Your task to perform on an android device: turn pop-ups off in chrome Image 0: 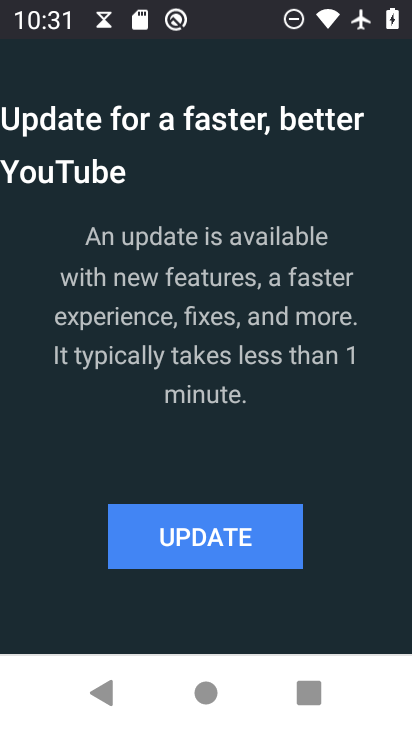
Step 0: press back button
Your task to perform on an android device: turn pop-ups off in chrome Image 1: 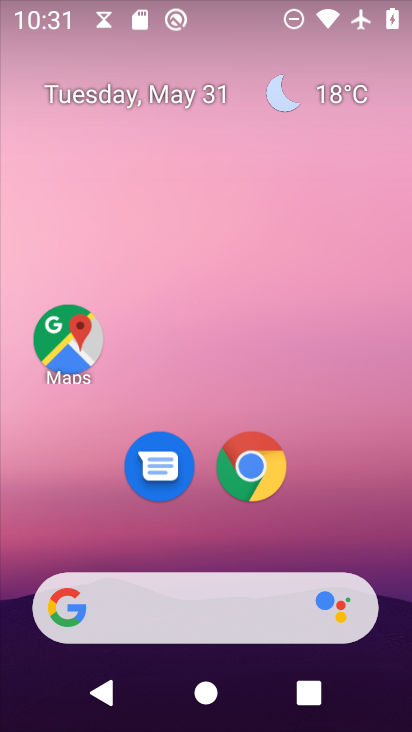
Step 1: click (248, 461)
Your task to perform on an android device: turn pop-ups off in chrome Image 2: 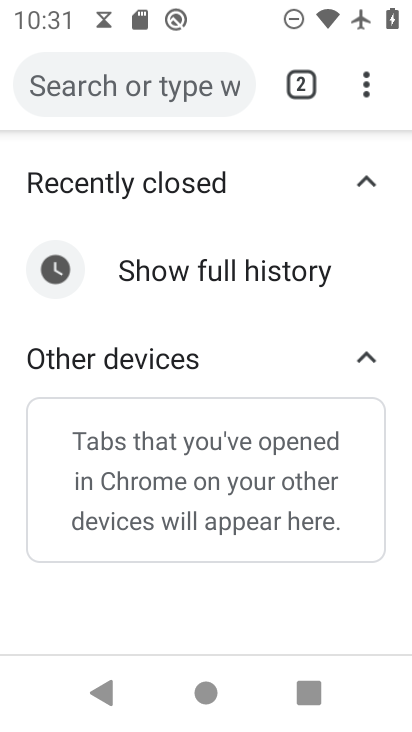
Step 2: drag from (364, 89) to (145, 507)
Your task to perform on an android device: turn pop-ups off in chrome Image 3: 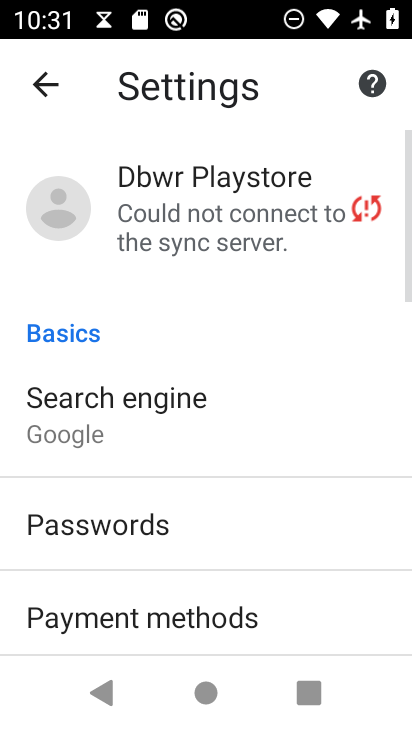
Step 3: drag from (261, 546) to (254, 263)
Your task to perform on an android device: turn pop-ups off in chrome Image 4: 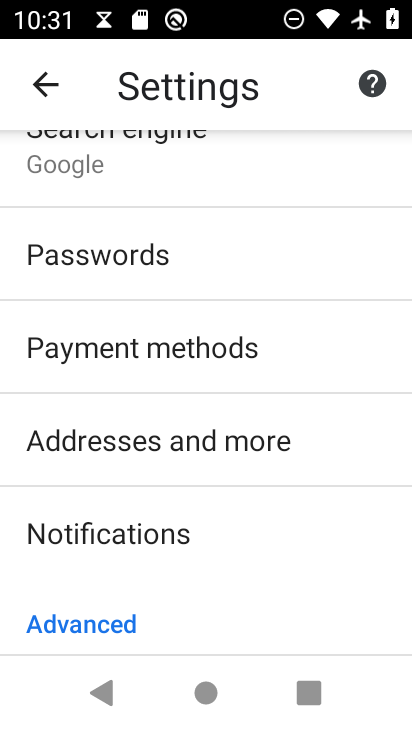
Step 4: drag from (231, 570) to (245, 174)
Your task to perform on an android device: turn pop-ups off in chrome Image 5: 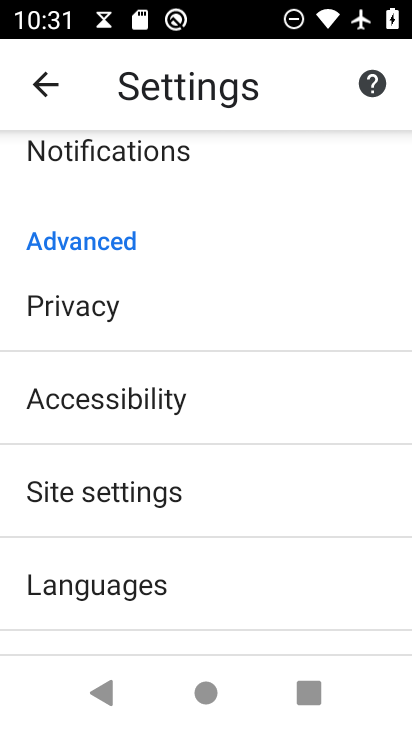
Step 5: click (199, 488)
Your task to perform on an android device: turn pop-ups off in chrome Image 6: 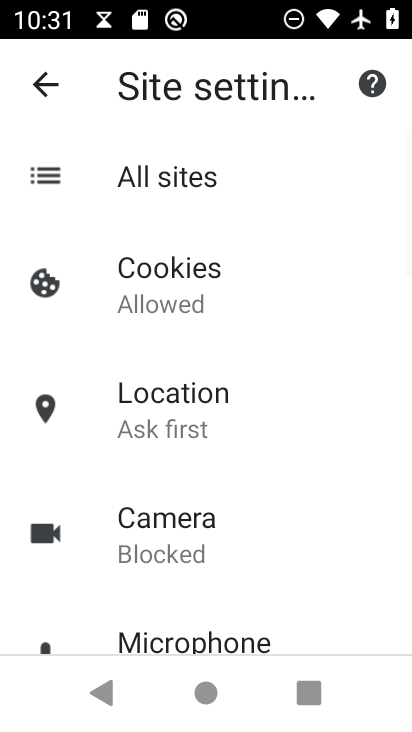
Step 6: drag from (251, 433) to (251, 137)
Your task to perform on an android device: turn pop-ups off in chrome Image 7: 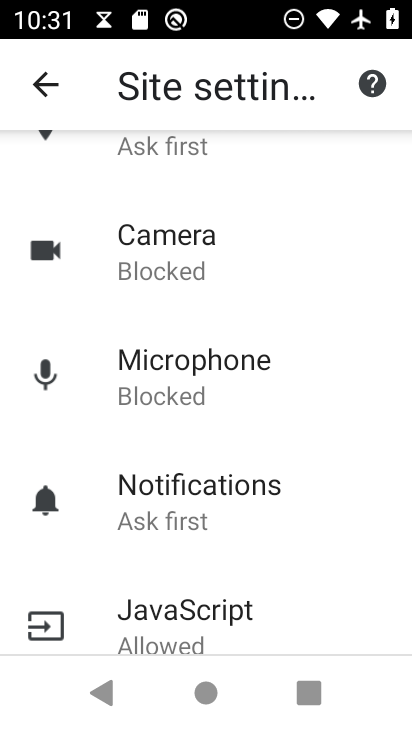
Step 7: drag from (259, 560) to (264, 163)
Your task to perform on an android device: turn pop-ups off in chrome Image 8: 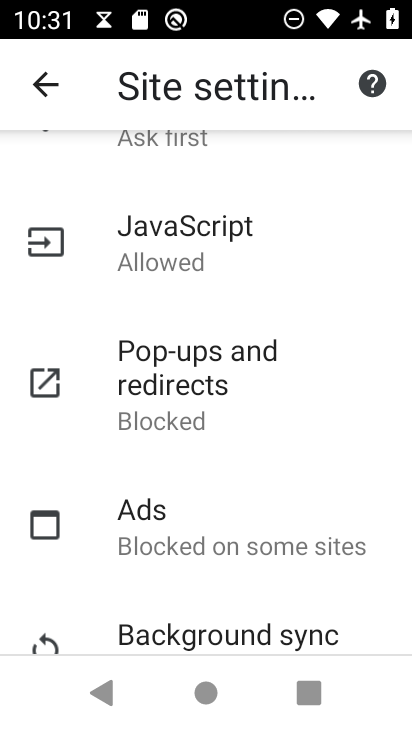
Step 8: drag from (283, 611) to (299, 203)
Your task to perform on an android device: turn pop-ups off in chrome Image 9: 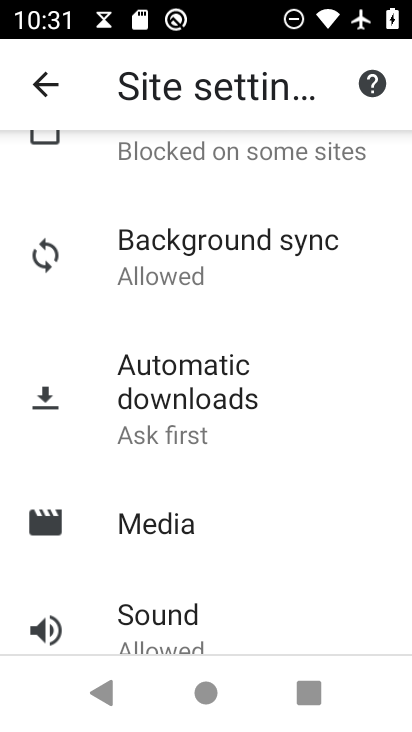
Step 9: drag from (291, 262) to (282, 564)
Your task to perform on an android device: turn pop-ups off in chrome Image 10: 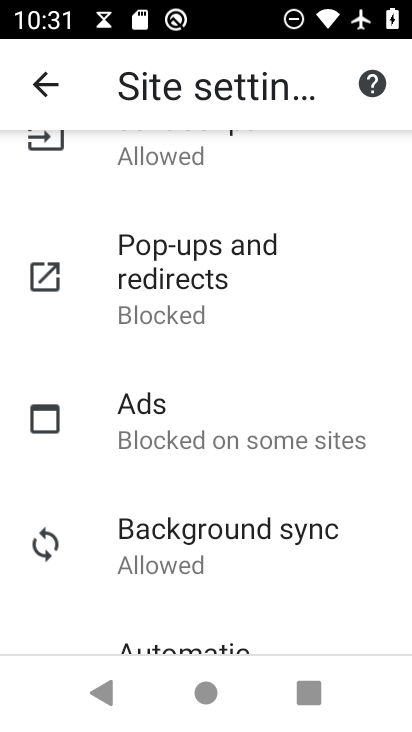
Step 10: click (191, 287)
Your task to perform on an android device: turn pop-ups off in chrome Image 11: 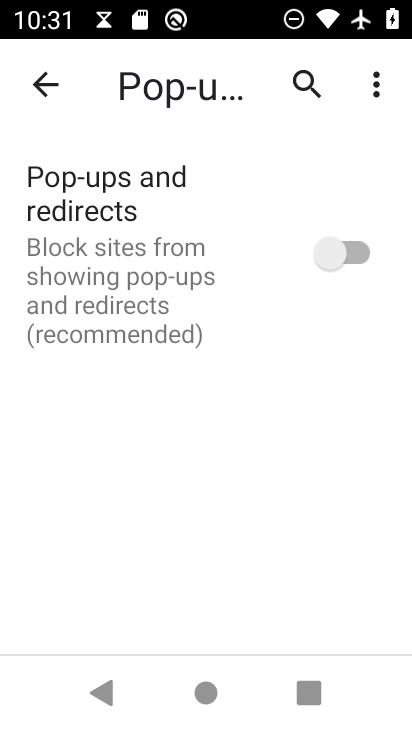
Step 11: task complete